Your task to perform on an android device: What's the news in Thailand? Image 0: 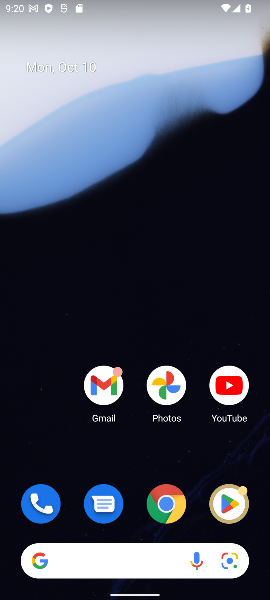
Step 0: click (168, 500)
Your task to perform on an android device: What's the news in Thailand? Image 1: 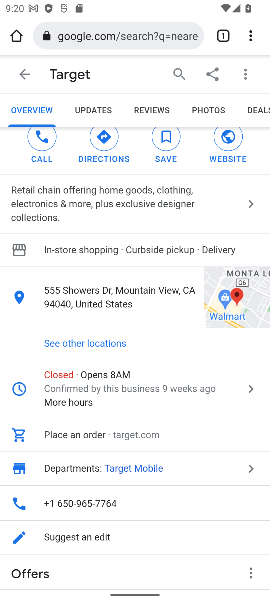
Step 1: click (112, 24)
Your task to perform on an android device: What's the news in Thailand? Image 2: 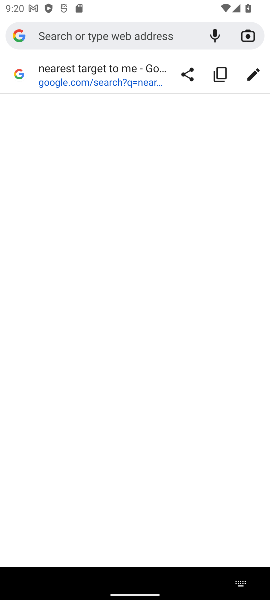
Step 2: type "news in Thailand?"
Your task to perform on an android device: What's the news in Thailand? Image 3: 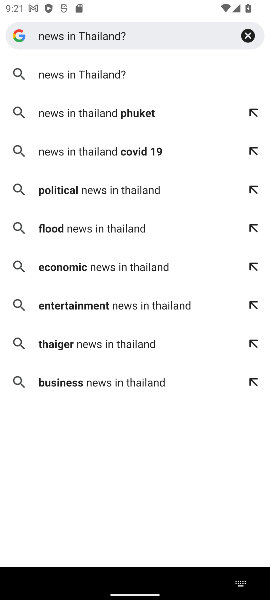
Step 3: click (65, 73)
Your task to perform on an android device: What's the news in Thailand? Image 4: 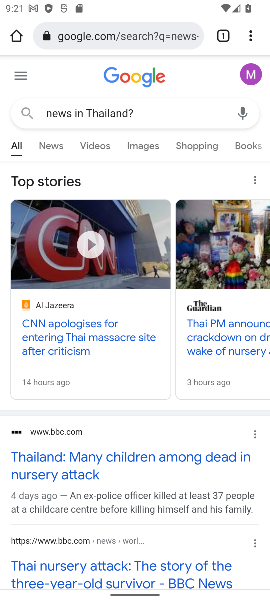
Step 4: click (60, 465)
Your task to perform on an android device: What's the news in Thailand? Image 5: 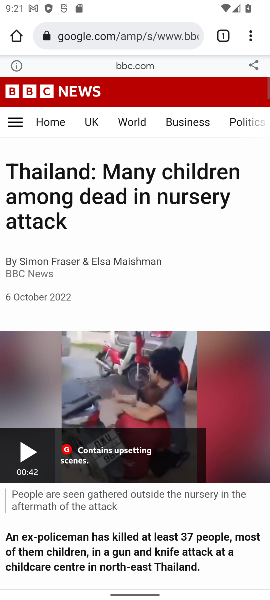
Step 5: task complete